Your task to perform on an android device: Open Google Chrome and click the shortcut for Amazon.com Image 0: 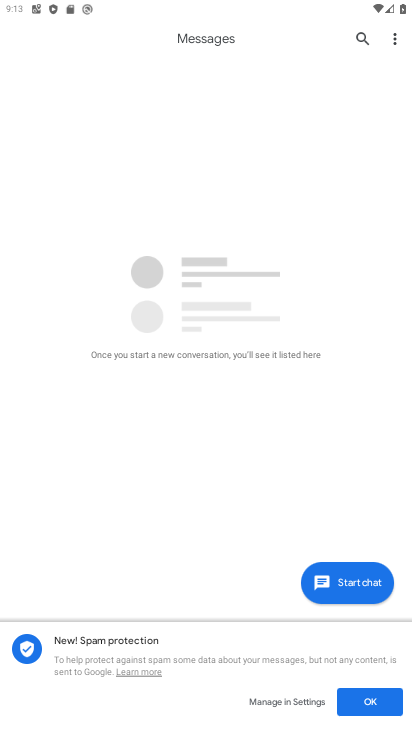
Step 0: press home button
Your task to perform on an android device: Open Google Chrome and click the shortcut for Amazon.com Image 1: 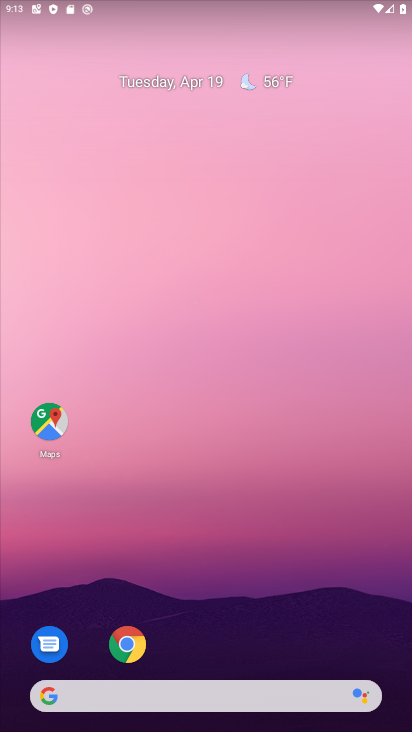
Step 1: click (132, 642)
Your task to perform on an android device: Open Google Chrome and click the shortcut for Amazon.com Image 2: 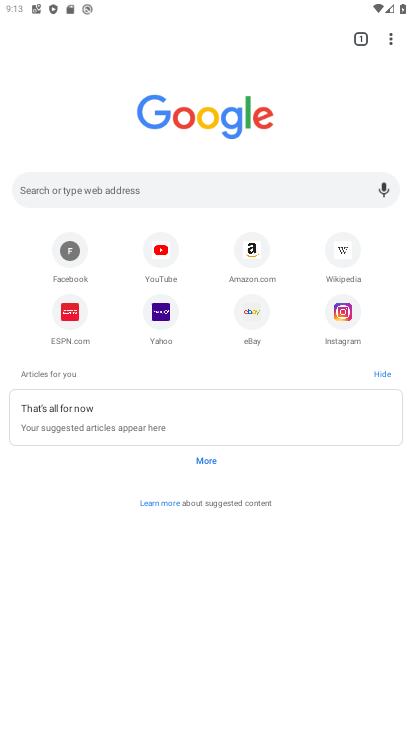
Step 2: click (258, 262)
Your task to perform on an android device: Open Google Chrome and click the shortcut for Amazon.com Image 3: 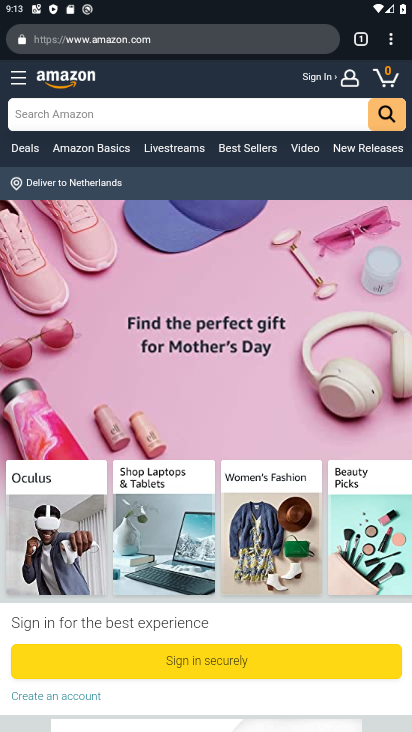
Step 3: task complete